Your task to perform on an android device: Open Maps and search for coffee Image 0: 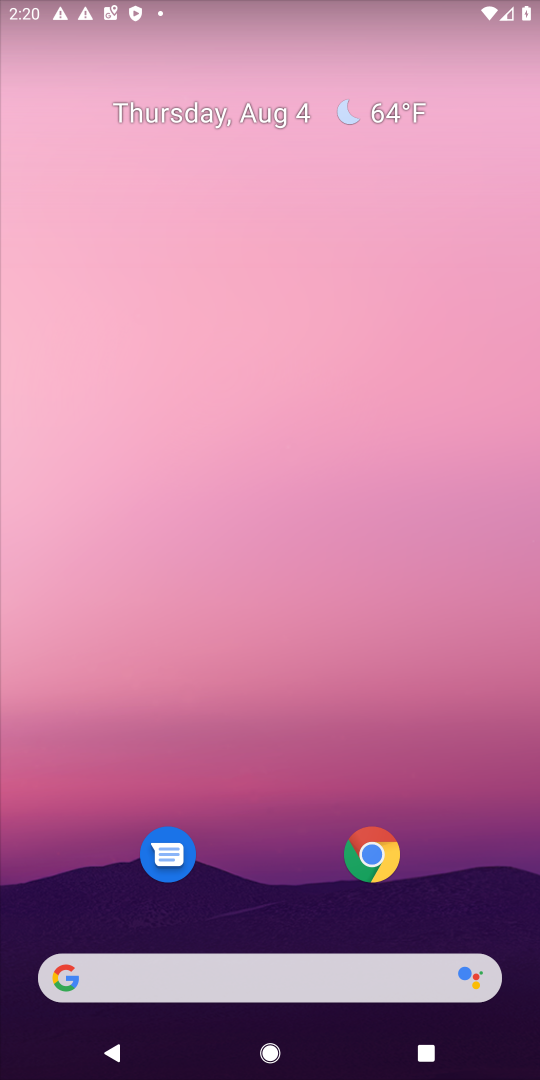
Step 0: drag from (303, 948) to (315, 343)
Your task to perform on an android device: Open Maps and search for coffee Image 1: 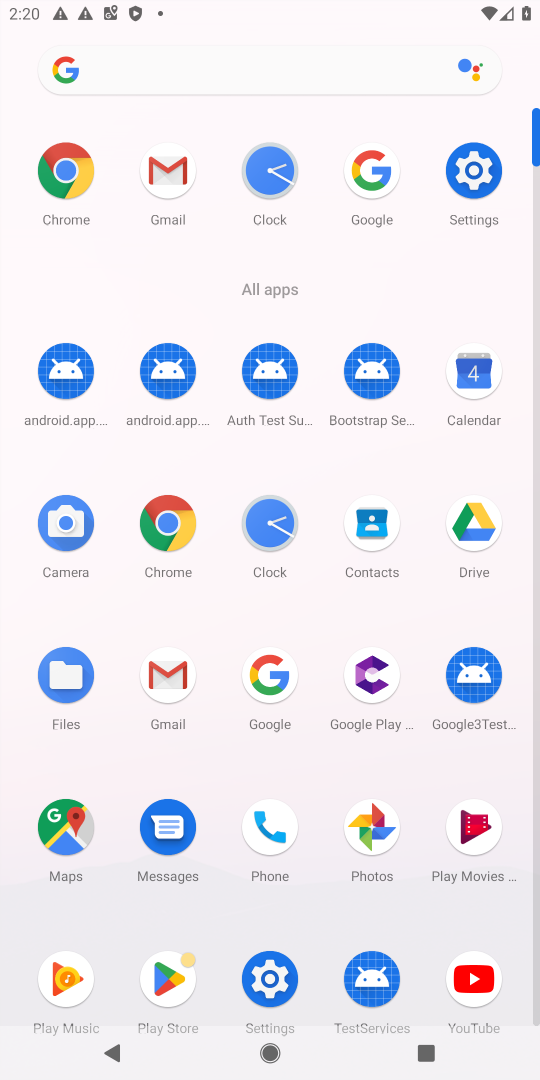
Step 1: click (51, 835)
Your task to perform on an android device: Open Maps and search for coffee Image 2: 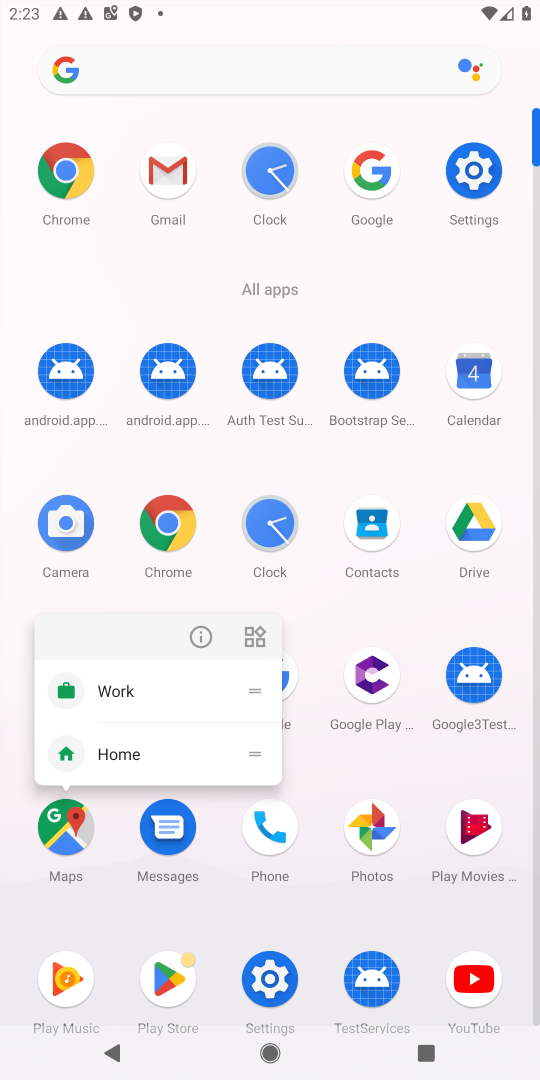
Step 2: click (60, 843)
Your task to perform on an android device: Open Maps and search for coffee Image 3: 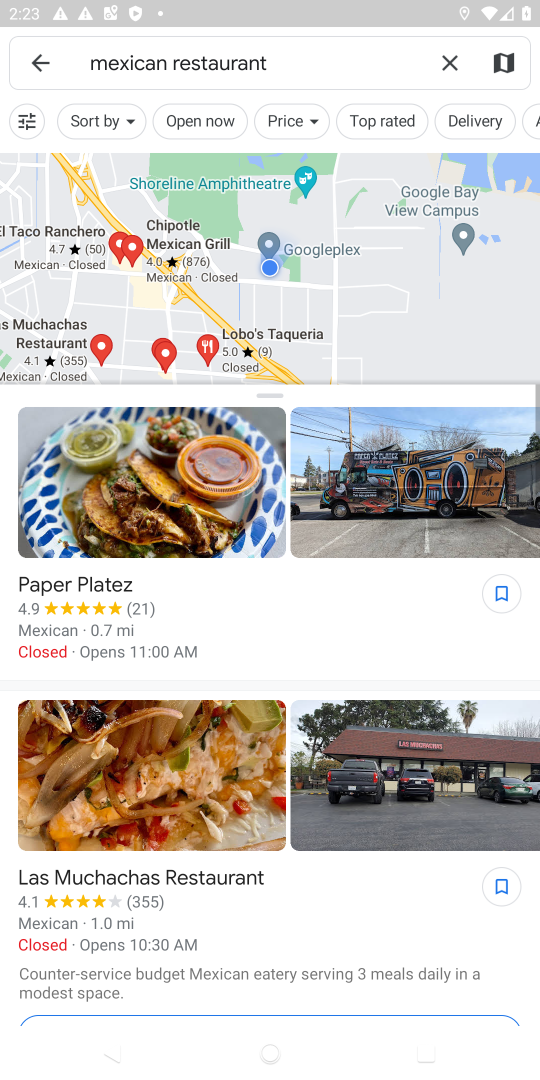
Step 3: click (452, 59)
Your task to perform on an android device: Open Maps and search for coffee Image 4: 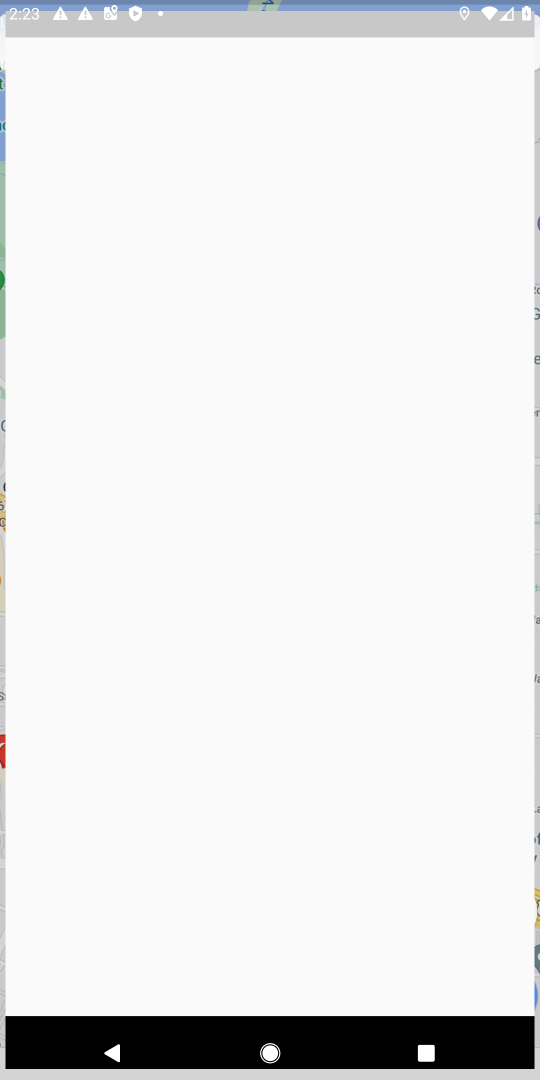
Step 4: click (242, 63)
Your task to perform on an android device: Open Maps and search for coffee Image 5: 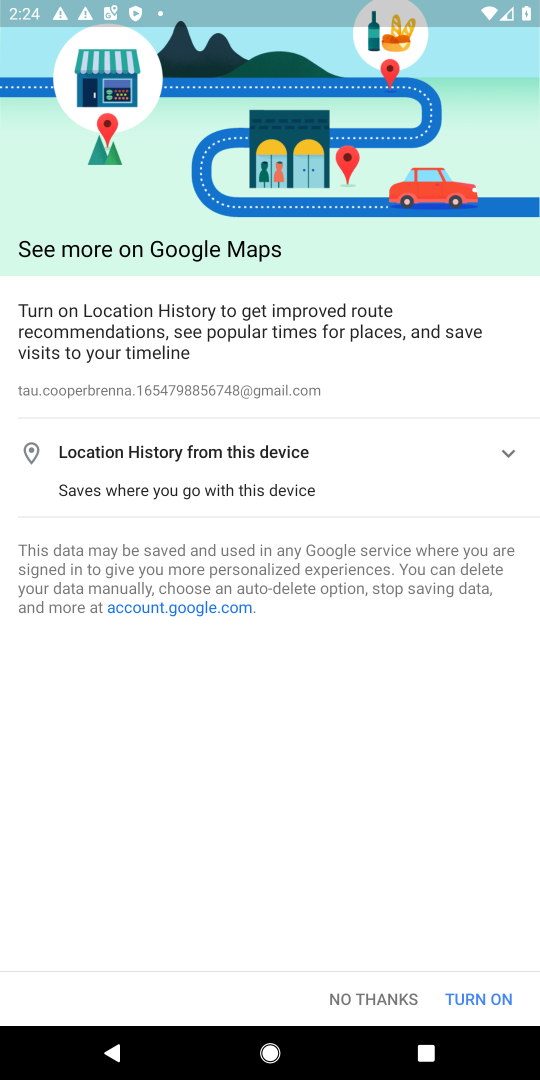
Step 5: click (463, 1003)
Your task to perform on an android device: Open Maps and search for coffee Image 6: 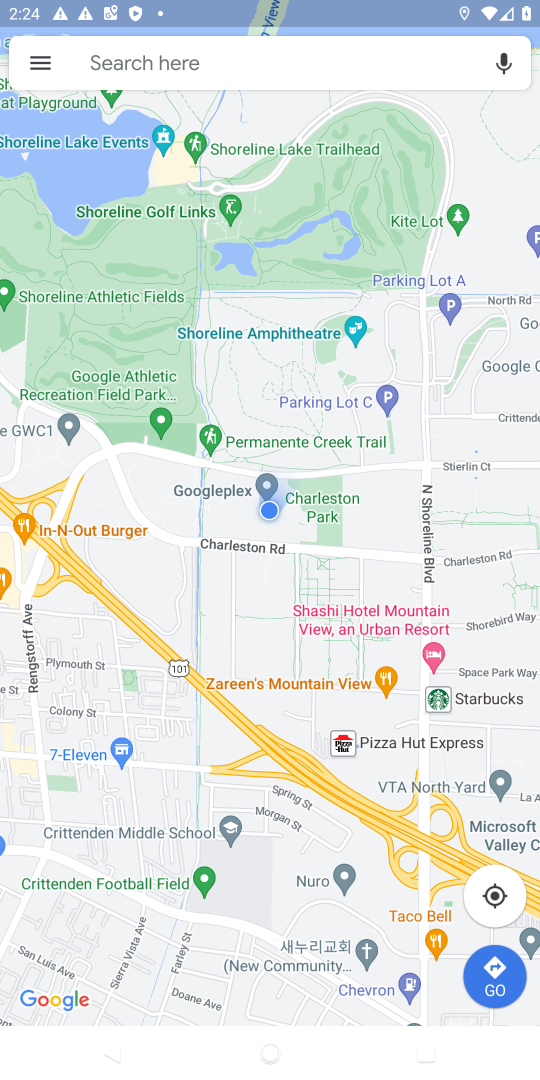
Step 6: click (169, 65)
Your task to perform on an android device: Open Maps and search for coffee Image 7: 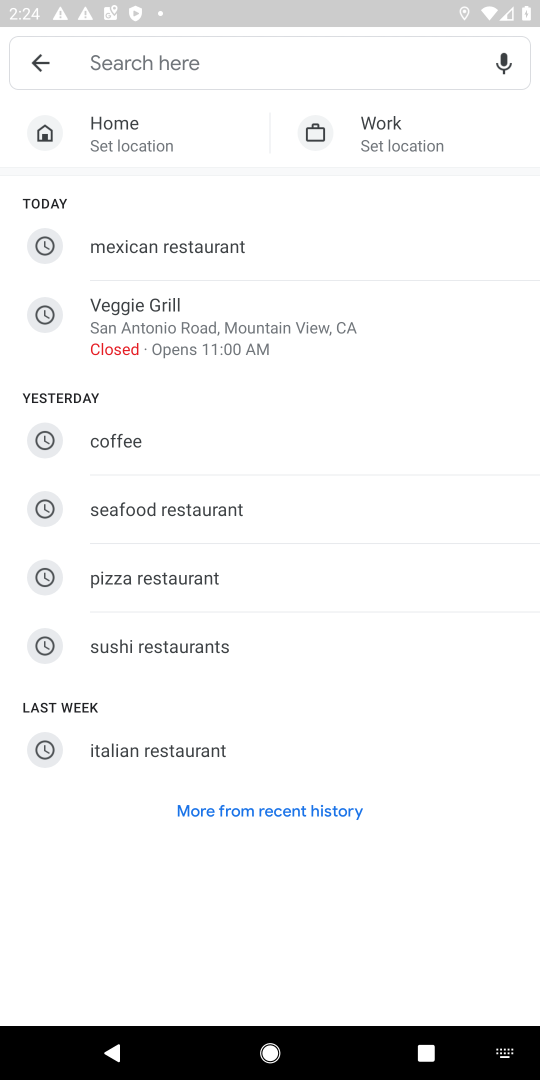
Step 7: click (159, 441)
Your task to perform on an android device: Open Maps and search for coffee Image 8: 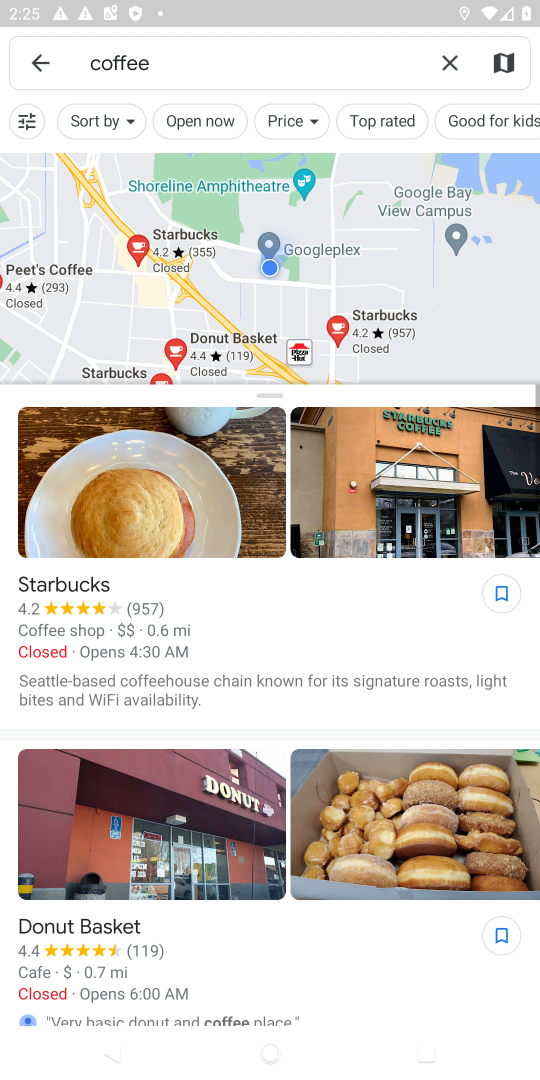
Step 8: task complete